Your task to perform on an android device: change the clock display to digital Image 0: 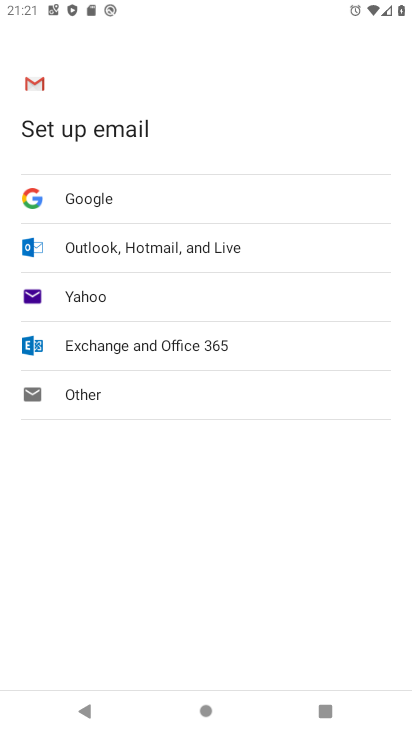
Step 0: press home button
Your task to perform on an android device: change the clock display to digital Image 1: 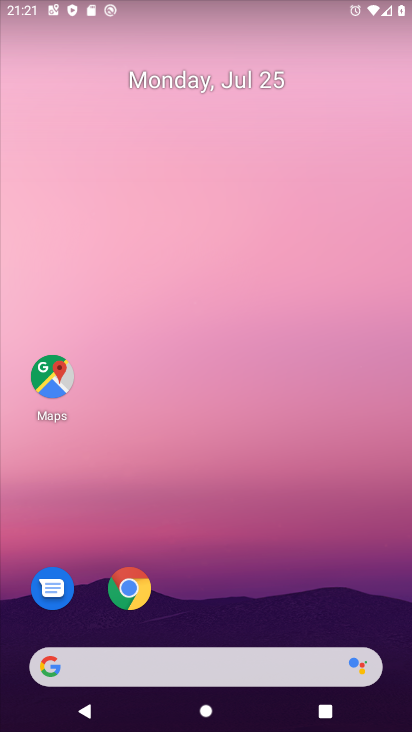
Step 1: drag from (204, 639) to (250, 36)
Your task to perform on an android device: change the clock display to digital Image 2: 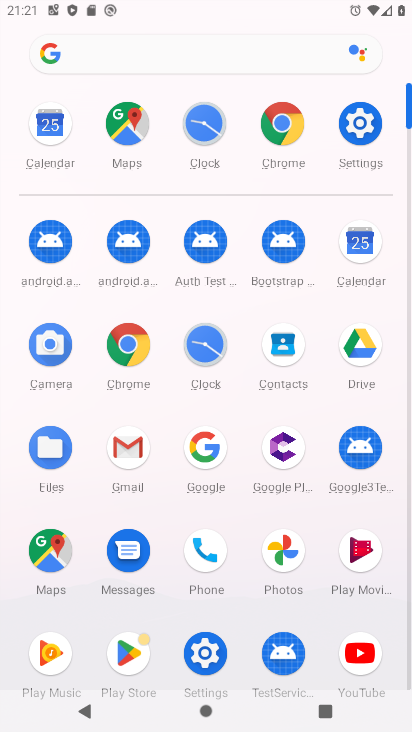
Step 2: click (210, 346)
Your task to perform on an android device: change the clock display to digital Image 3: 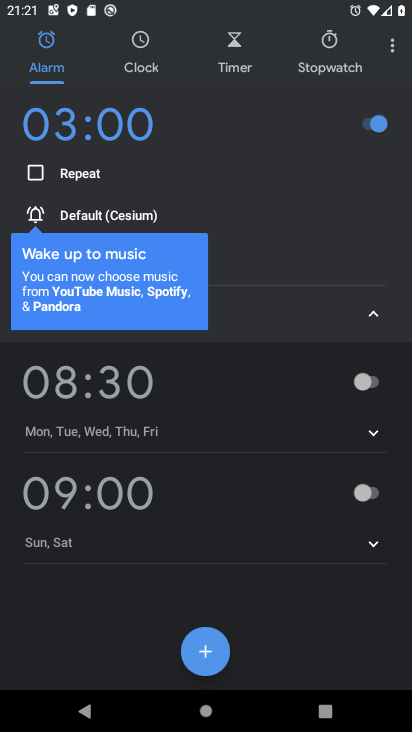
Step 3: click (391, 48)
Your task to perform on an android device: change the clock display to digital Image 4: 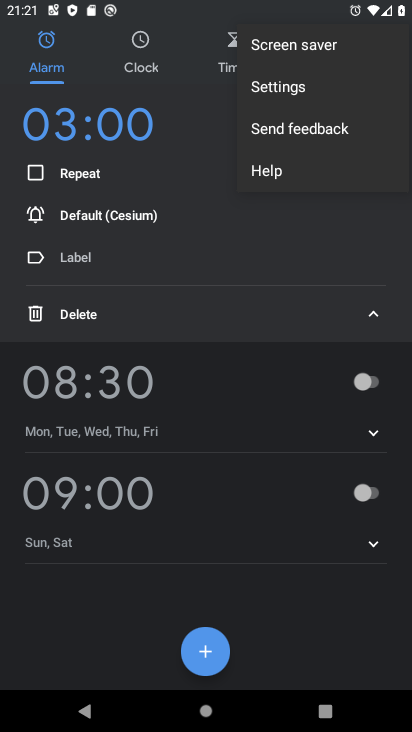
Step 4: click (266, 87)
Your task to perform on an android device: change the clock display to digital Image 5: 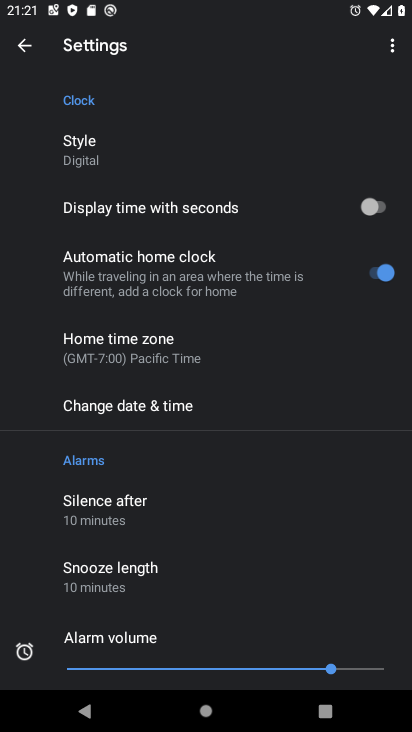
Step 5: task complete